Your task to perform on an android device: Go to Google Image 0: 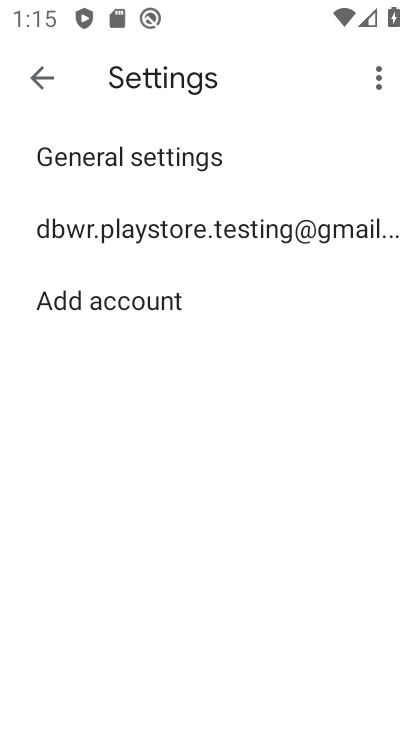
Step 0: press home button
Your task to perform on an android device: Go to Google Image 1: 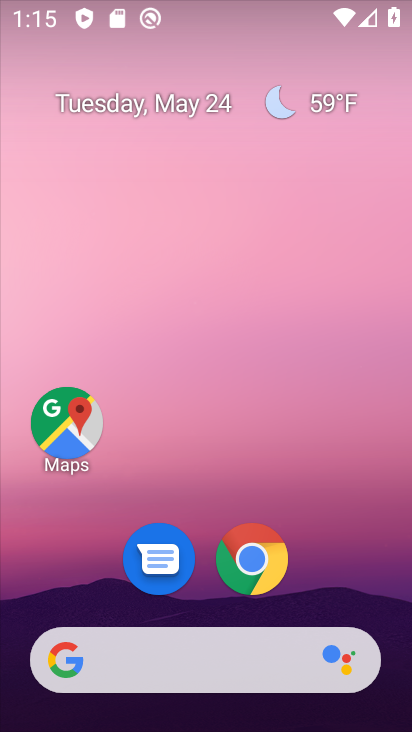
Step 1: drag from (392, 644) to (319, 31)
Your task to perform on an android device: Go to Google Image 2: 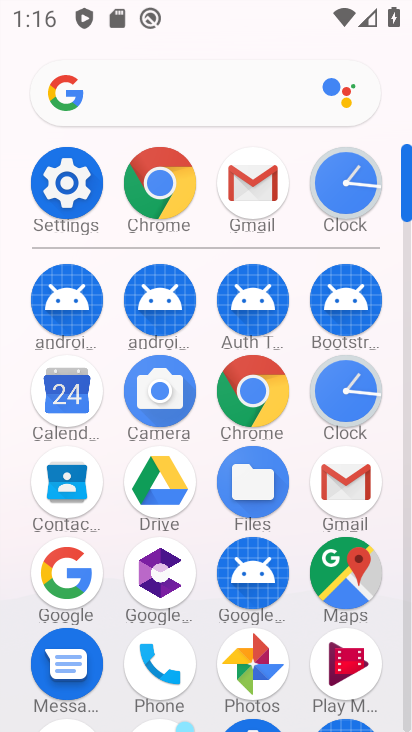
Step 2: click (71, 579)
Your task to perform on an android device: Go to Google Image 3: 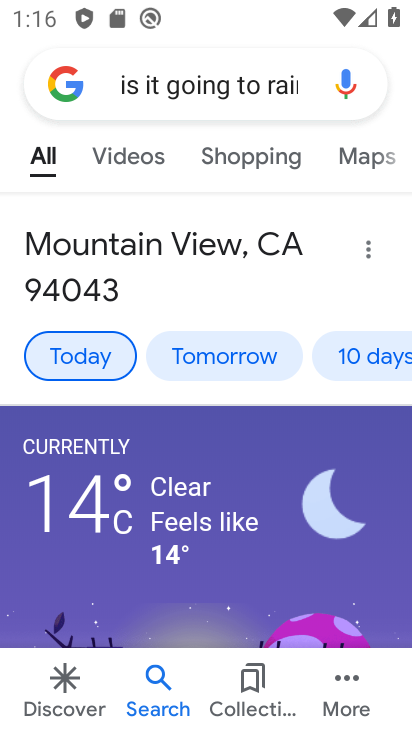
Step 3: task complete